Your task to perform on an android device: Show me recent news Image 0: 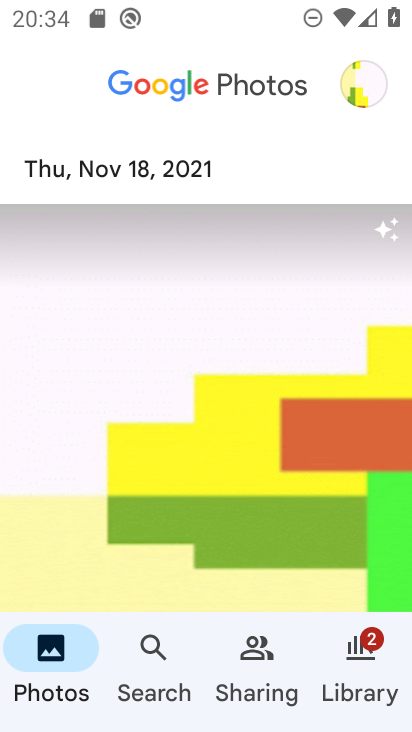
Step 0: press home button
Your task to perform on an android device: Show me recent news Image 1: 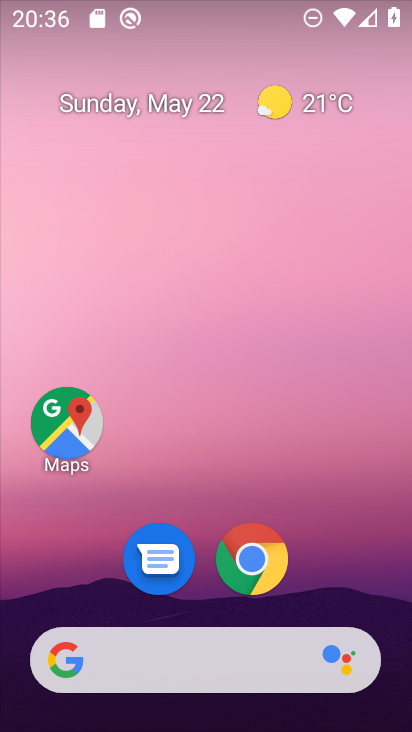
Step 1: click (195, 672)
Your task to perform on an android device: Show me recent news Image 2: 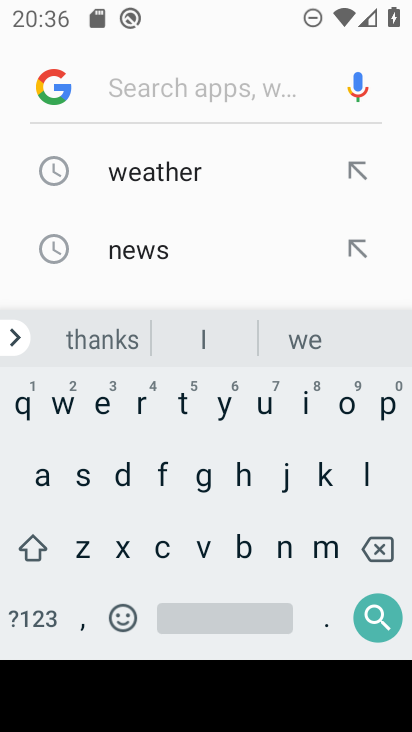
Step 2: drag from (144, 296) to (152, 236)
Your task to perform on an android device: Show me recent news Image 3: 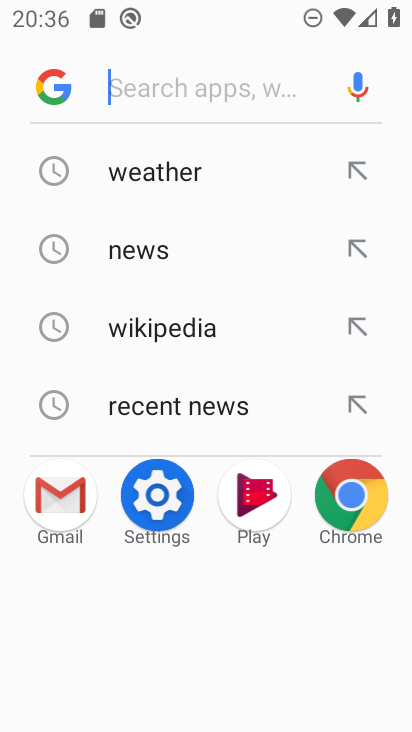
Step 3: click (164, 399)
Your task to perform on an android device: Show me recent news Image 4: 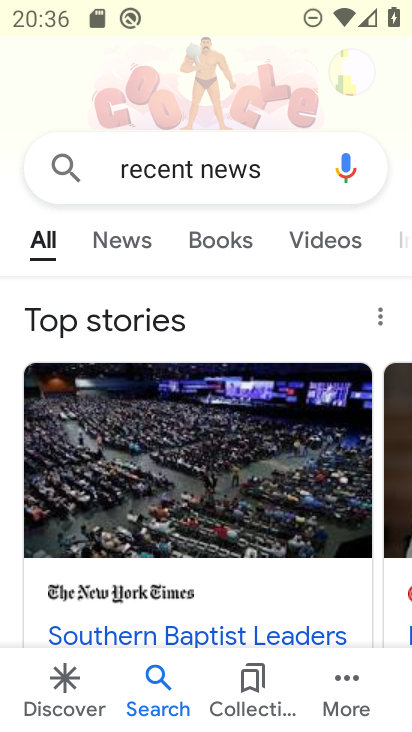
Step 4: task complete